Your task to perform on an android device: open wifi settings Image 0: 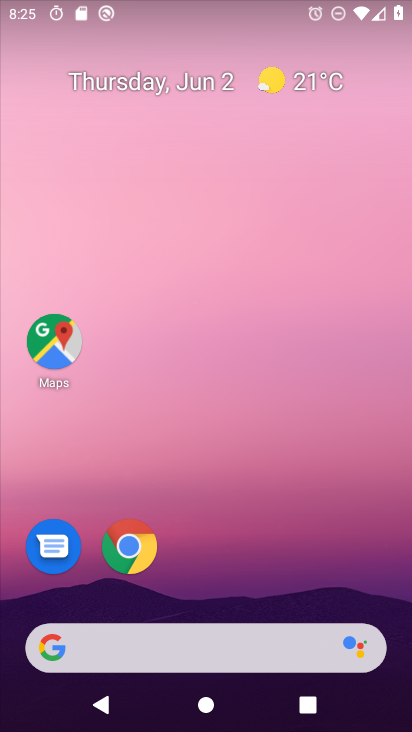
Step 0: drag from (310, 549) to (288, 171)
Your task to perform on an android device: open wifi settings Image 1: 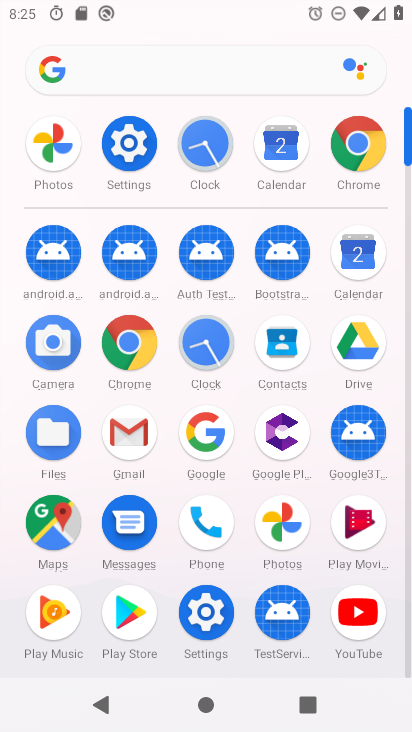
Step 1: click (211, 633)
Your task to perform on an android device: open wifi settings Image 2: 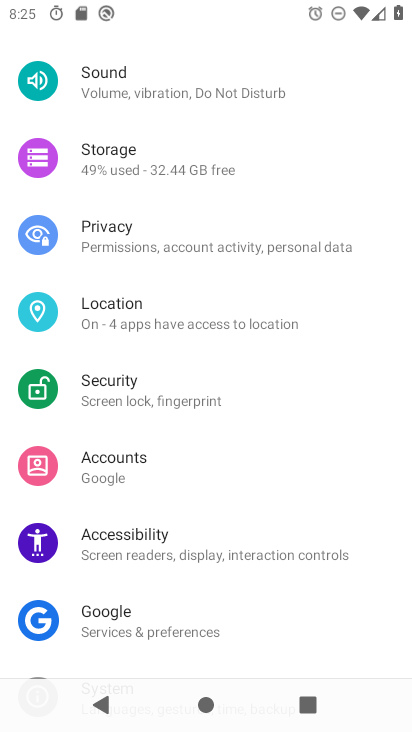
Step 2: drag from (247, 141) to (232, 484)
Your task to perform on an android device: open wifi settings Image 3: 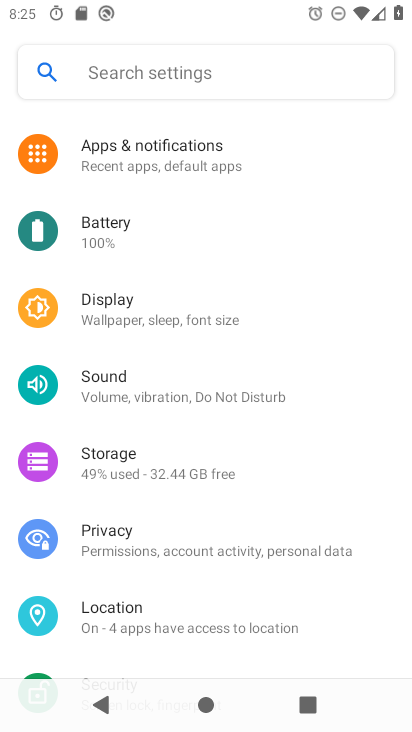
Step 3: drag from (217, 189) to (239, 456)
Your task to perform on an android device: open wifi settings Image 4: 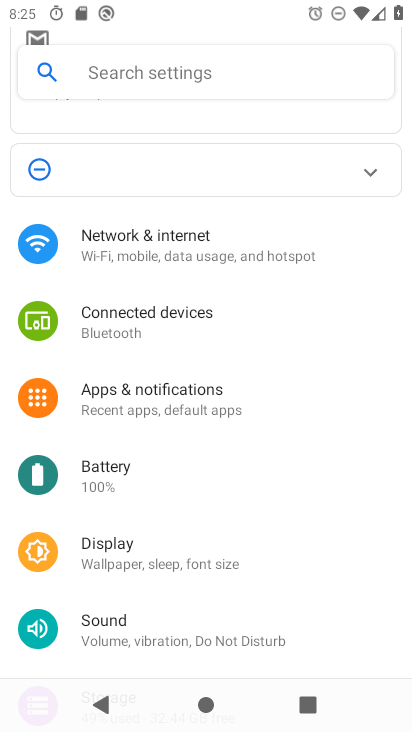
Step 4: click (226, 245)
Your task to perform on an android device: open wifi settings Image 5: 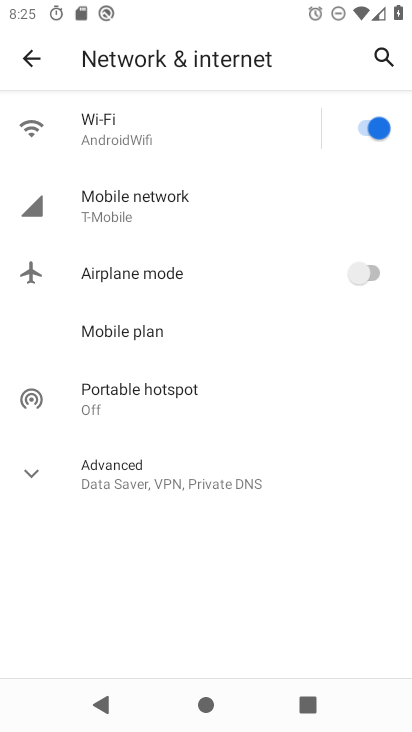
Step 5: click (223, 132)
Your task to perform on an android device: open wifi settings Image 6: 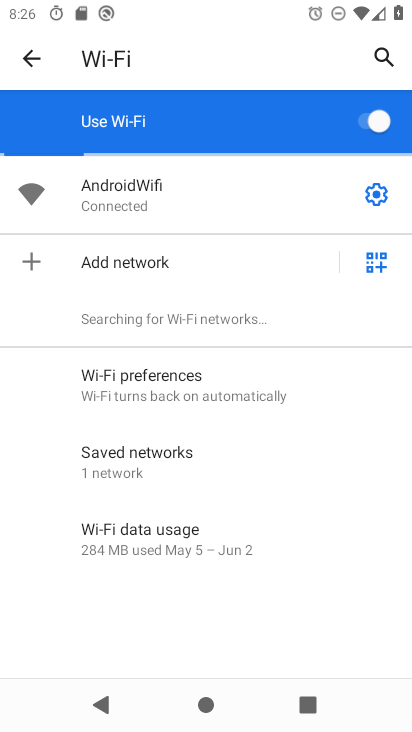
Step 6: task complete